Your task to perform on an android device: open app "Adobe Express: Graphic Design" Image 0: 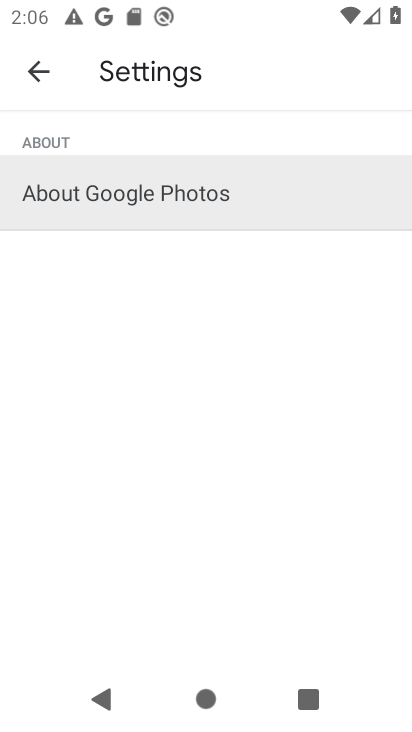
Step 0: press home button
Your task to perform on an android device: open app "Adobe Express: Graphic Design" Image 1: 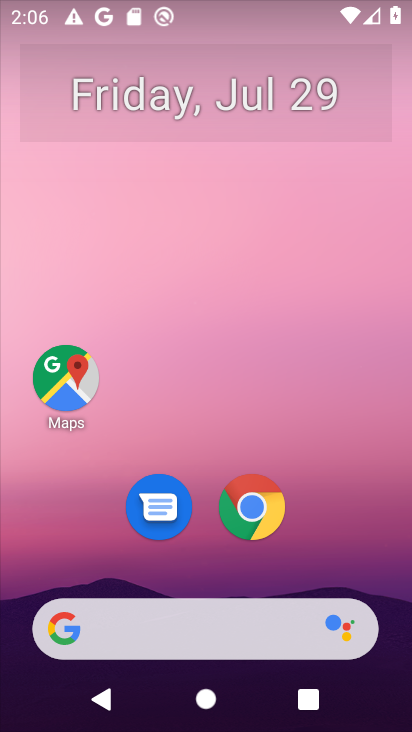
Step 1: drag from (352, 562) to (274, 115)
Your task to perform on an android device: open app "Adobe Express: Graphic Design" Image 2: 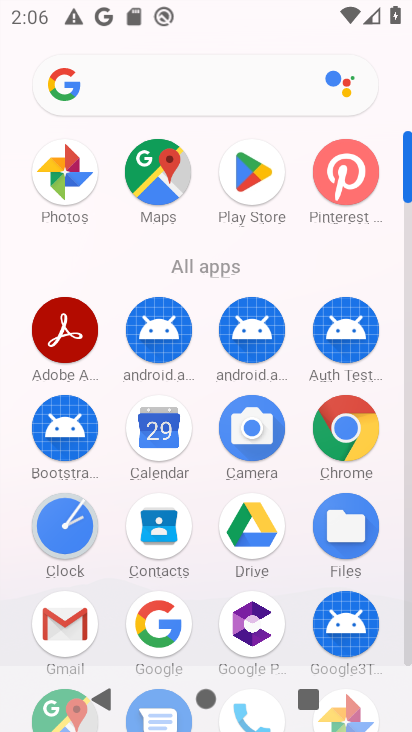
Step 2: click (235, 168)
Your task to perform on an android device: open app "Adobe Express: Graphic Design" Image 3: 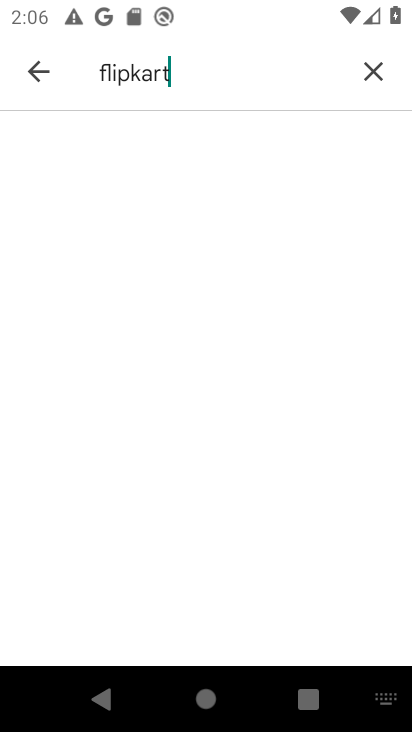
Step 3: click (357, 80)
Your task to perform on an android device: open app "Adobe Express: Graphic Design" Image 4: 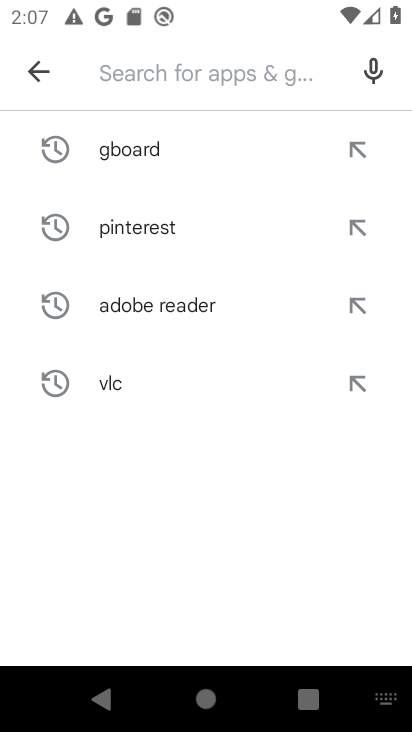
Step 4: type "adobe express"
Your task to perform on an android device: open app "Adobe Express: Graphic Design" Image 5: 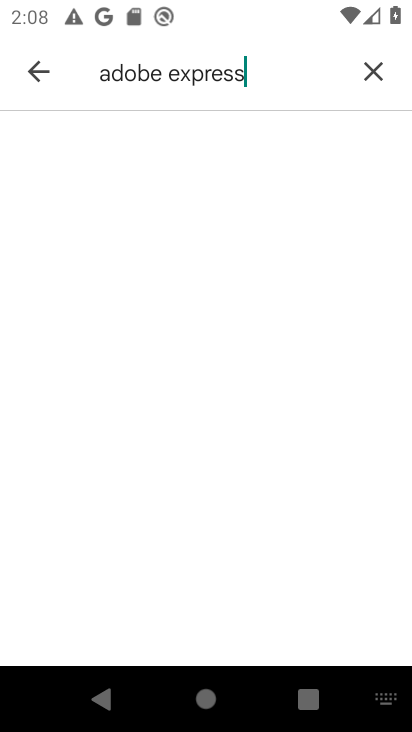
Step 5: task complete